Your task to perform on an android device: toggle sleep mode Image 0: 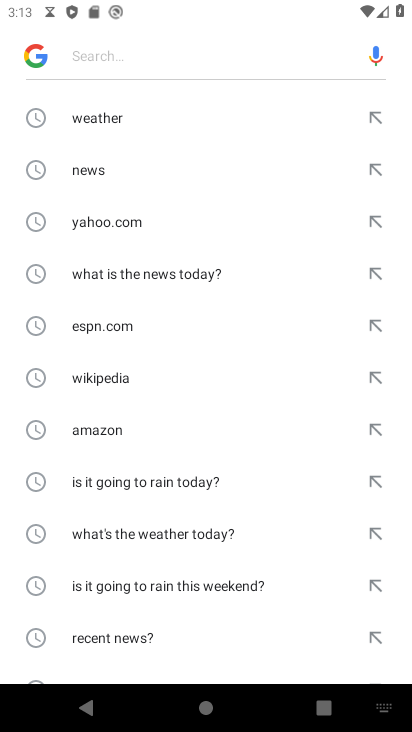
Step 0: press home button
Your task to perform on an android device: toggle sleep mode Image 1: 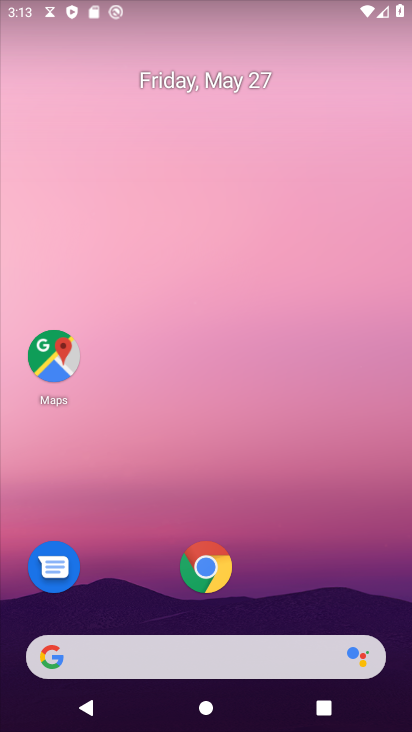
Step 1: drag from (134, 594) to (225, 6)
Your task to perform on an android device: toggle sleep mode Image 2: 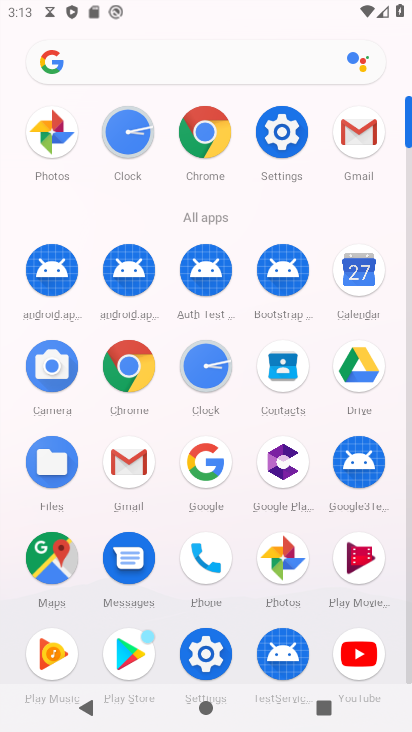
Step 2: click (273, 117)
Your task to perform on an android device: toggle sleep mode Image 3: 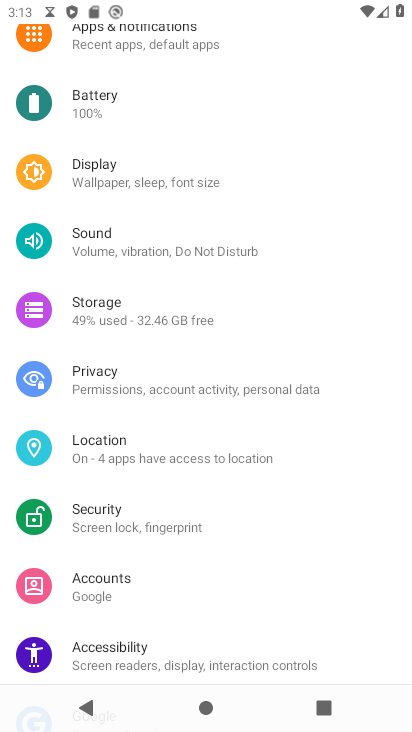
Step 3: drag from (220, 130) to (186, 668)
Your task to perform on an android device: toggle sleep mode Image 4: 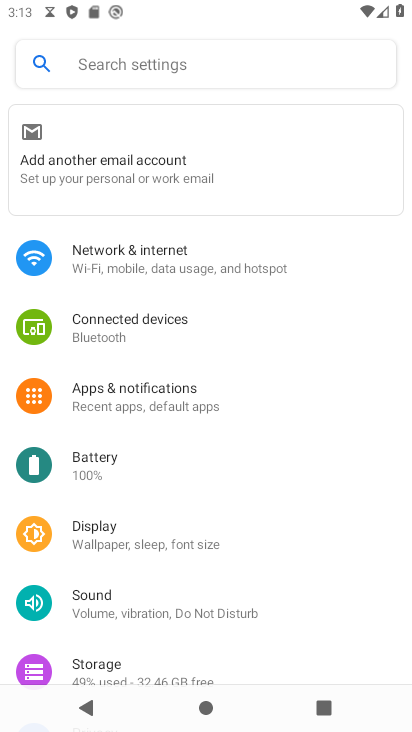
Step 4: click (108, 60)
Your task to perform on an android device: toggle sleep mode Image 5: 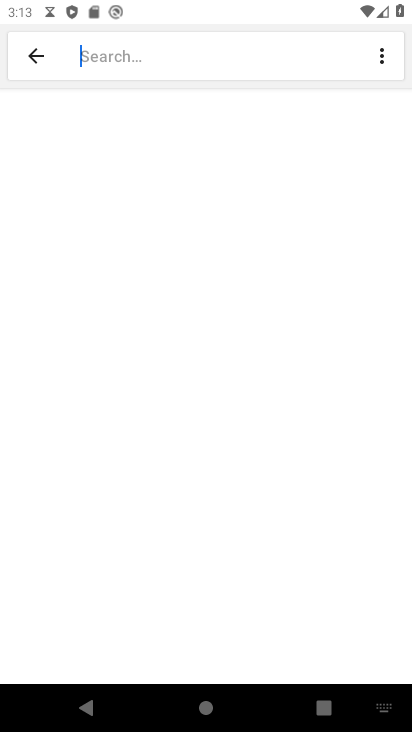
Step 5: type "sleep mode"
Your task to perform on an android device: toggle sleep mode Image 6: 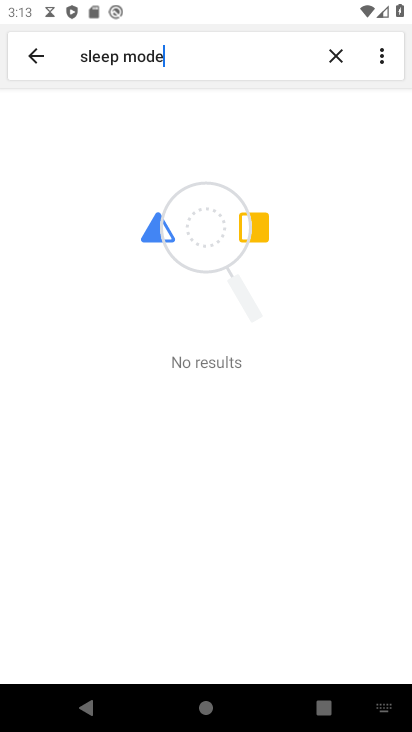
Step 6: task complete